Your task to perform on an android device: Open internet settings Image 0: 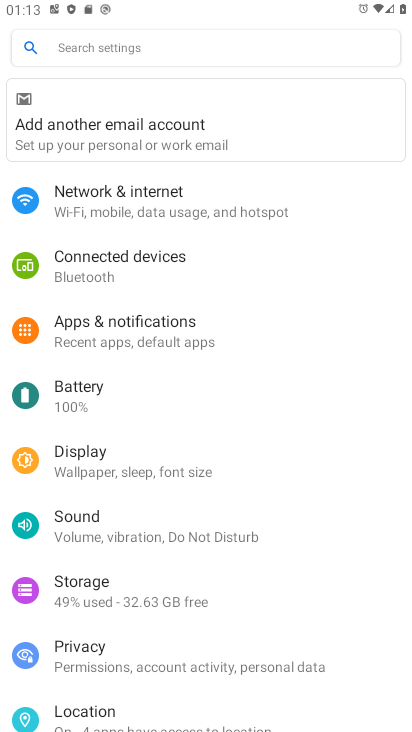
Step 0: click (176, 186)
Your task to perform on an android device: Open internet settings Image 1: 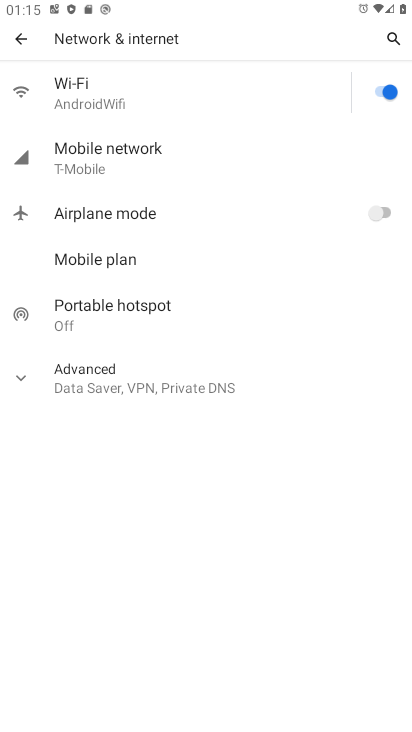
Step 1: task complete